Your task to perform on an android device: check storage Image 0: 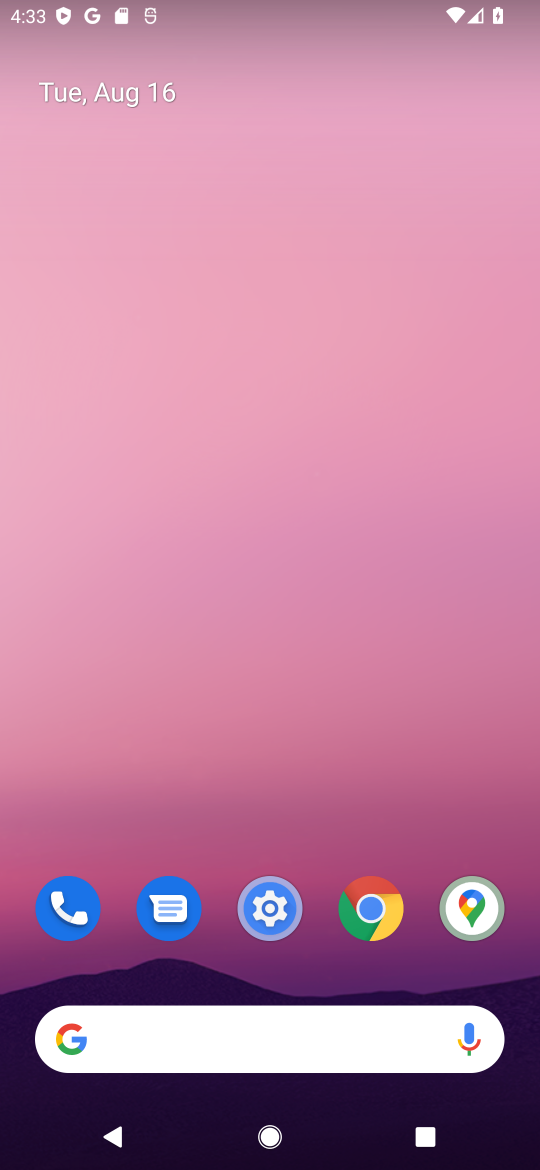
Step 0: click (262, 903)
Your task to perform on an android device: check storage Image 1: 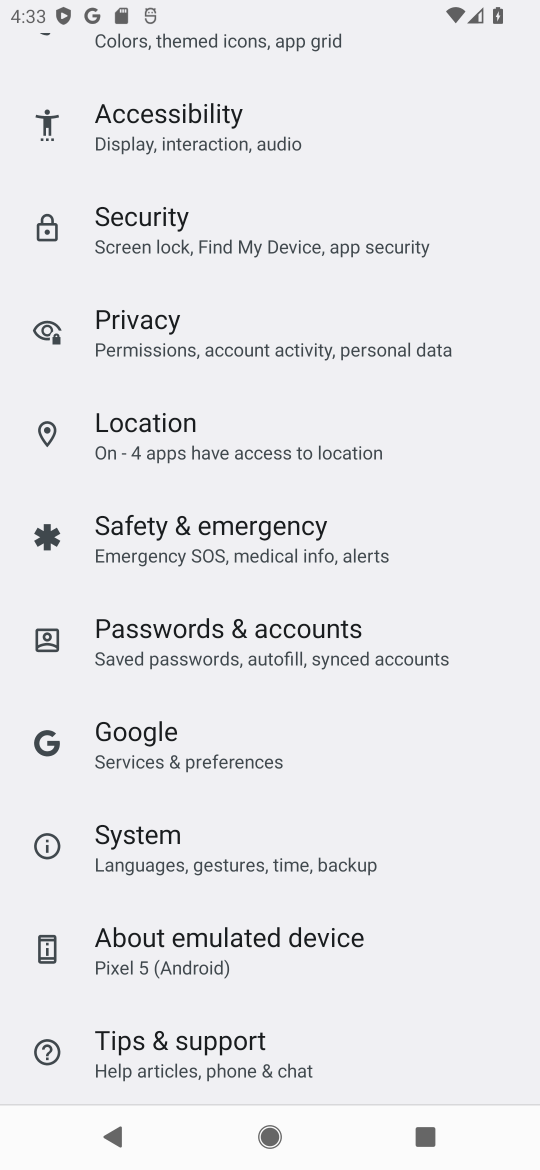
Step 1: drag from (325, 194) to (322, 931)
Your task to perform on an android device: check storage Image 2: 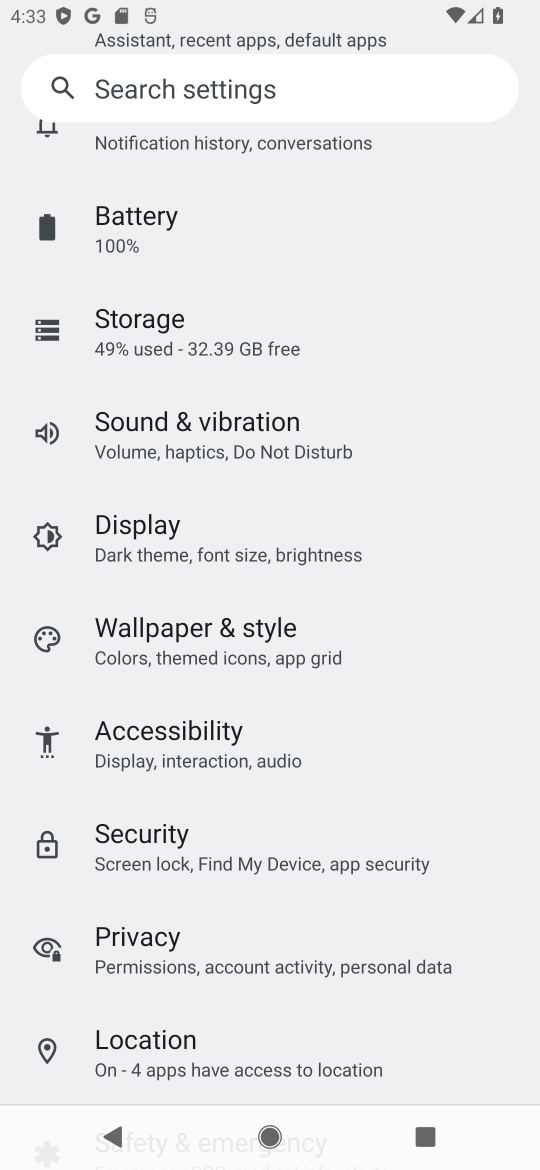
Step 2: click (159, 323)
Your task to perform on an android device: check storage Image 3: 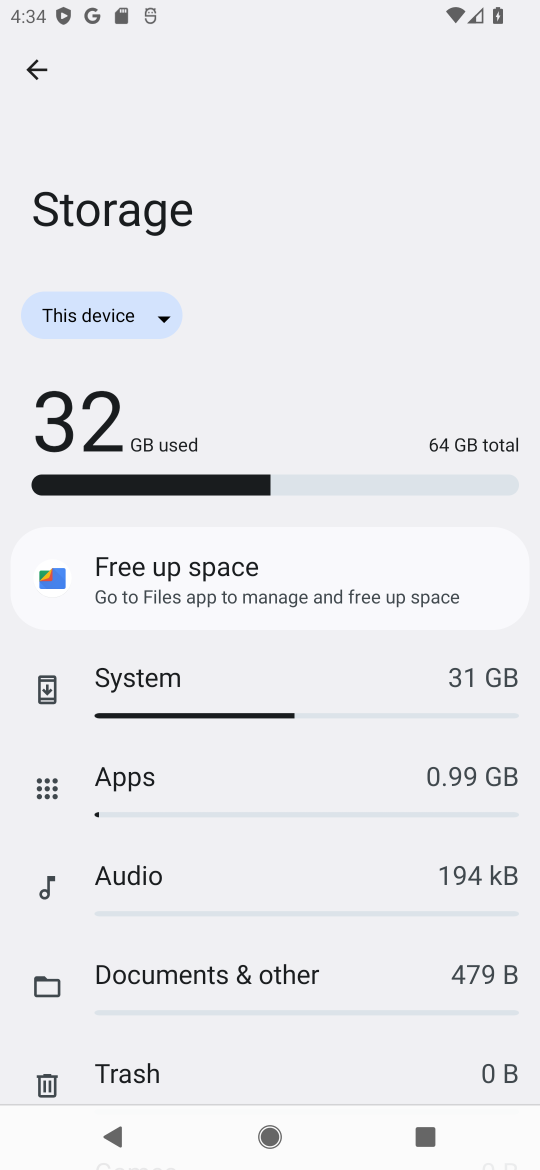
Step 3: task complete